Your task to perform on an android device: Open Chrome and go to settings Image 0: 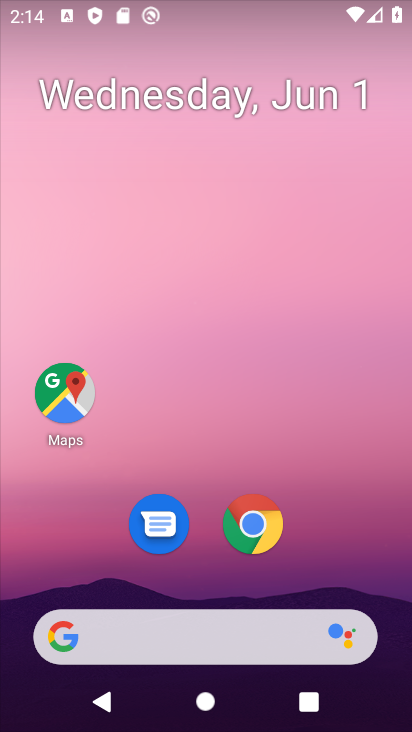
Step 0: click (256, 517)
Your task to perform on an android device: Open Chrome and go to settings Image 1: 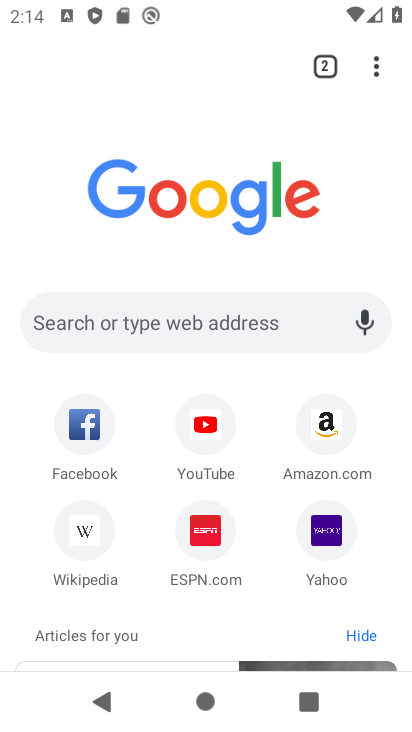
Step 1: click (375, 73)
Your task to perform on an android device: Open Chrome and go to settings Image 2: 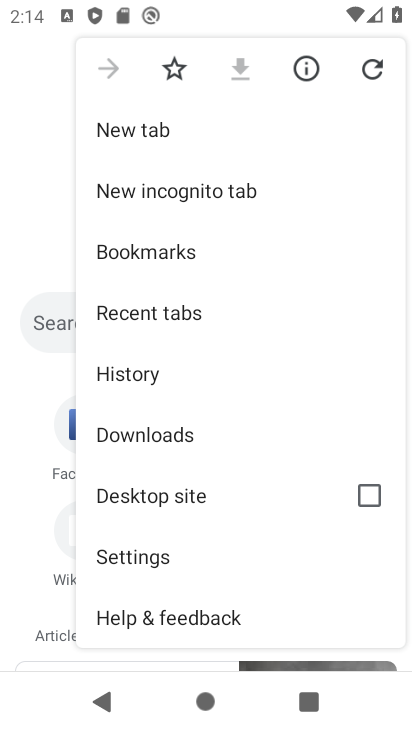
Step 2: click (157, 553)
Your task to perform on an android device: Open Chrome and go to settings Image 3: 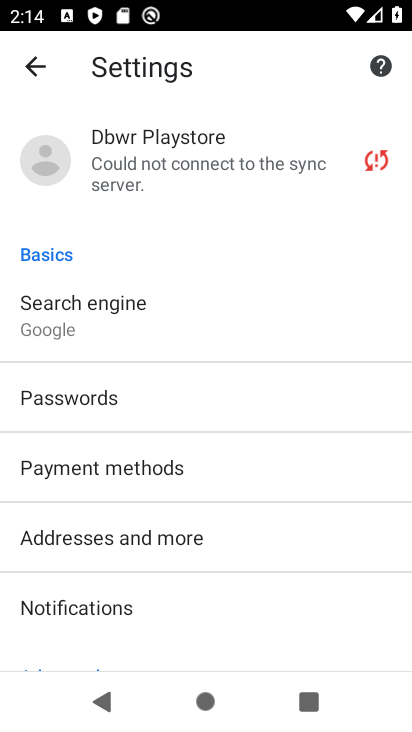
Step 3: task complete